Your task to perform on an android device: Open settings Image 0: 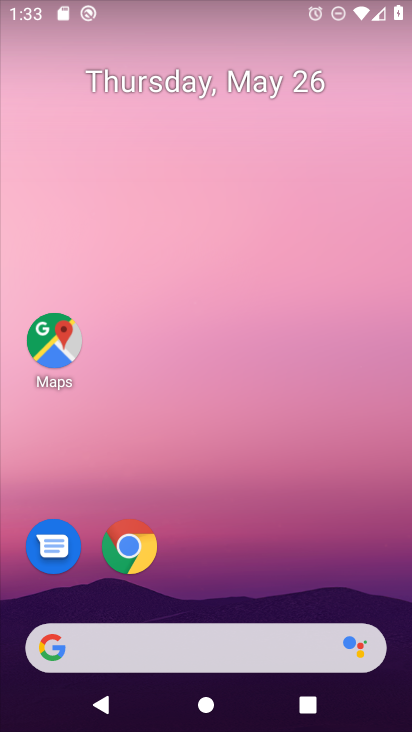
Step 0: drag from (200, 457) to (257, 63)
Your task to perform on an android device: Open settings Image 1: 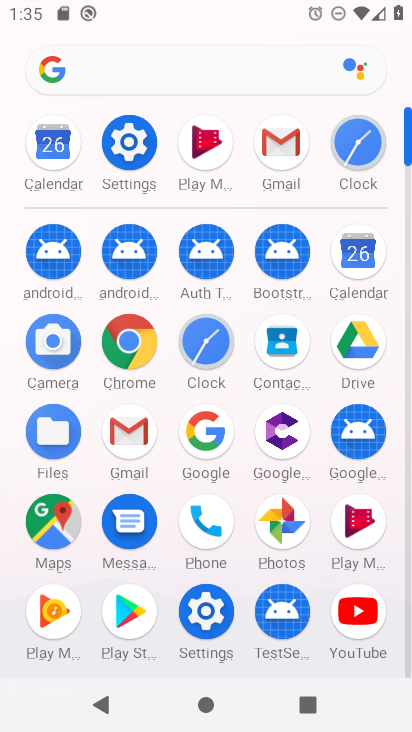
Step 1: click (124, 140)
Your task to perform on an android device: Open settings Image 2: 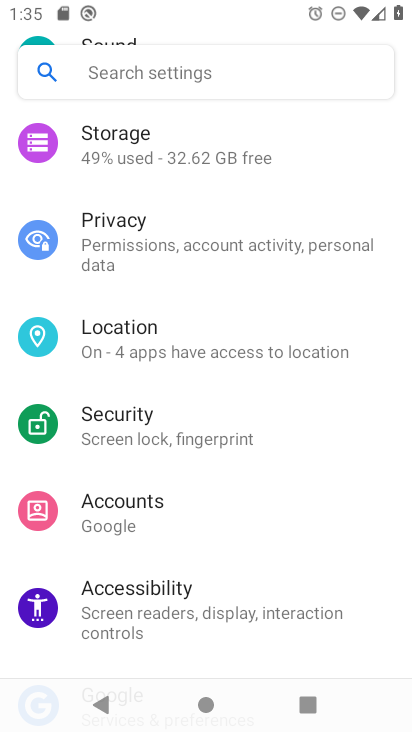
Step 2: task complete